Your task to perform on an android device: turn off javascript in the chrome app Image 0: 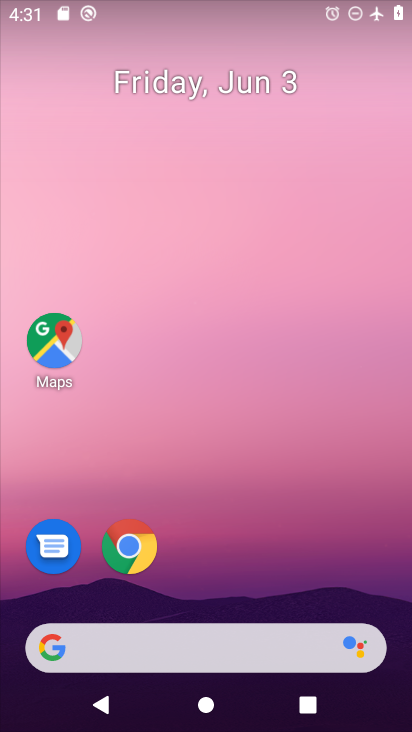
Step 0: click (131, 533)
Your task to perform on an android device: turn off javascript in the chrome app Image 1: 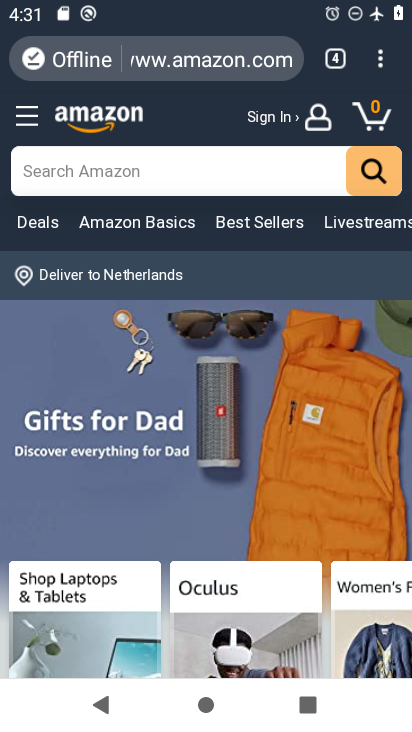
Step 1: click (375, 63)
Your task to perform on an android device: turn off javascript in the chrome app Image 2: 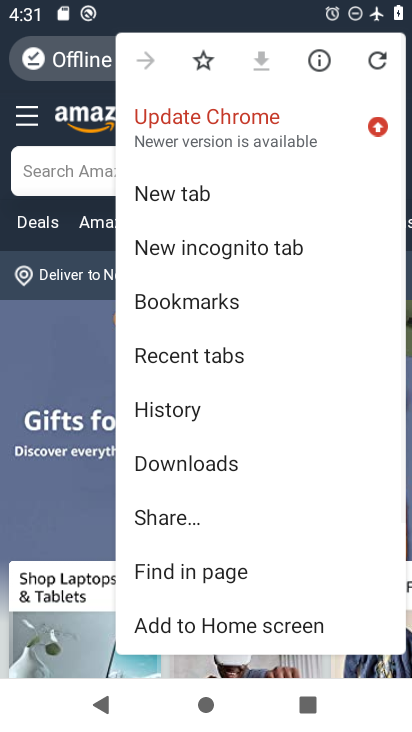
Step 2: drag from (217, 505) to (245, 307)
Your task to perform on an android device: turn off javascript in the chrome app Image 3: 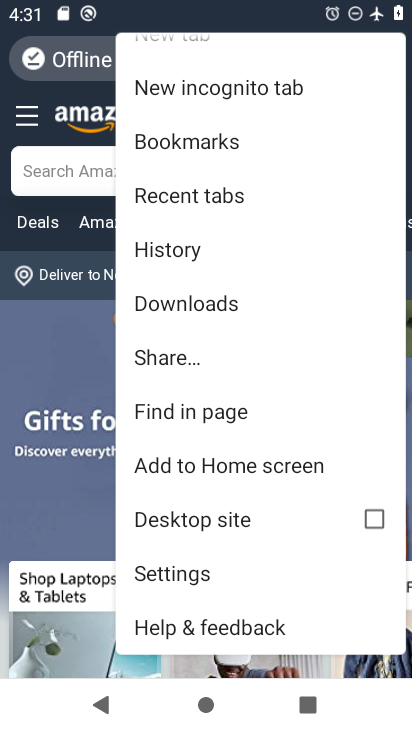
Step 3: click (229, 573)
Your task to perform on an android device: turn off javascript in the chrome app Image 4: 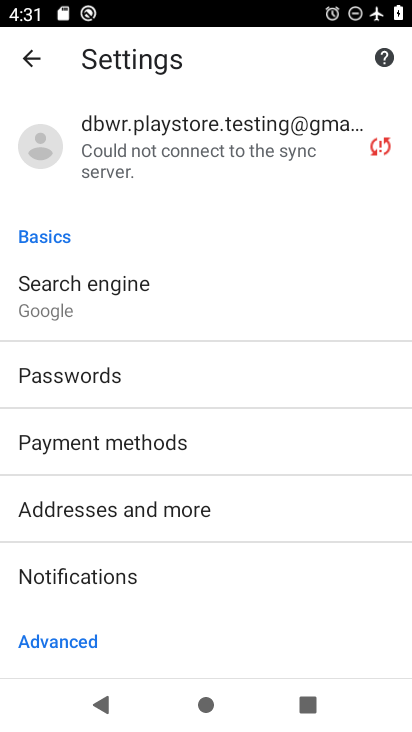
Step 4: drag from (229, 573) to (304, 164)
Your task to perform on an android device: turn off javascript in the chrome app Image 5: 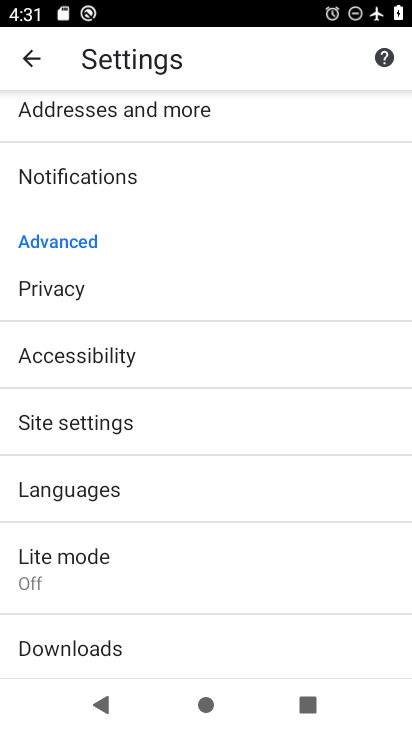
Step 5: click (189, 423)
Your task to perform on an android device: turn off javascript in the chrome app Image 6: 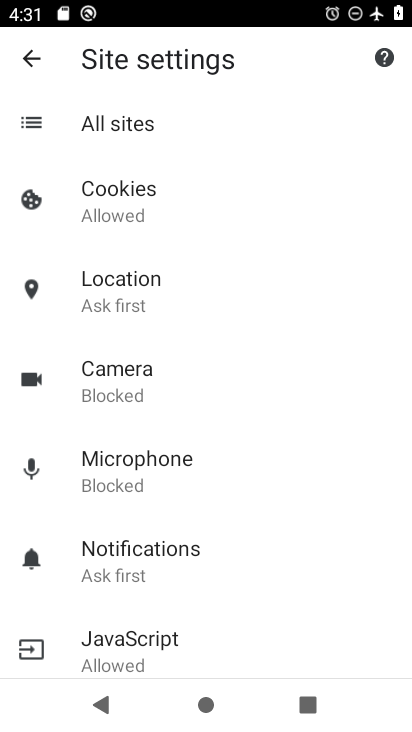
Step 6: click (142, 640)
Your task to perform on an android device: turn off javascript in the chrome app Image 7: 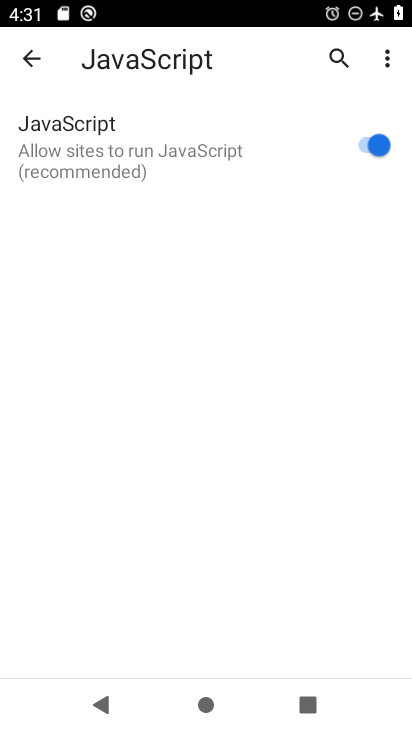
Step 7: click (374, 133)
Your task to perform on an android device: turn off javascript in the chrome app Image 8: 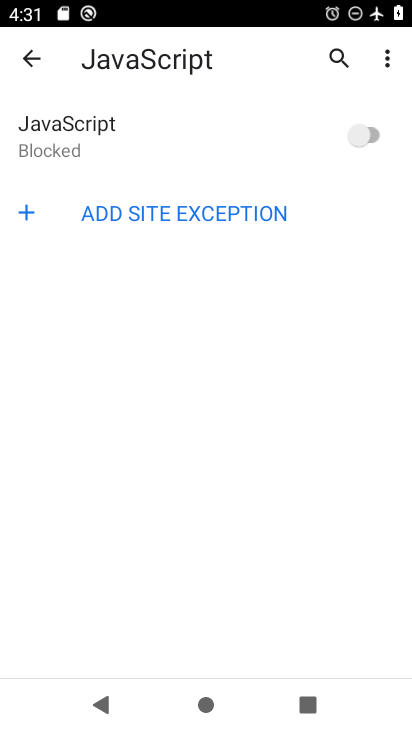
Step 8: task complete